Your task to perform on an android device: Open the Play Movies app and select the watchlist tab. Image 0: 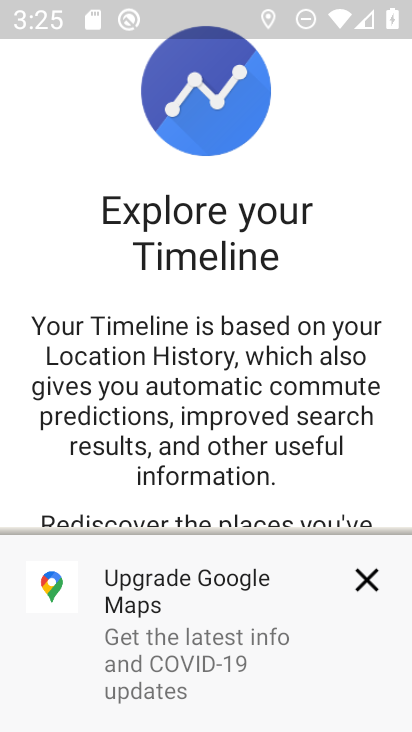
Step 0: press home button
Your task to perform on an android device: Open the Play Movies app and select the watchlist tab. Image 1: 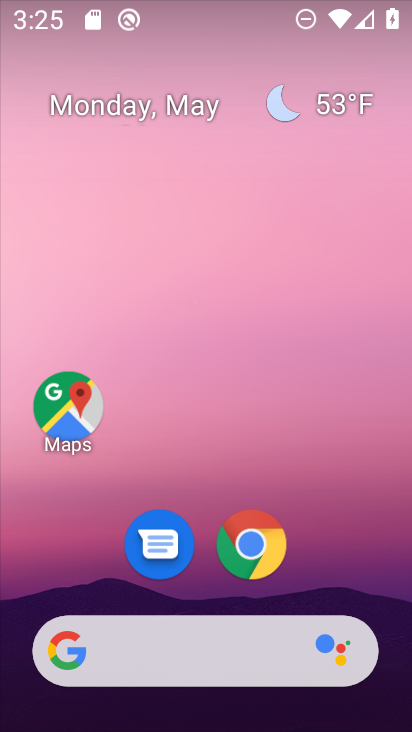
Step 1: drag from (123, 725) to (161, 0)
Your task to perform on an android device: Open the Play Movies app and select the watchlist tab. Image 2: 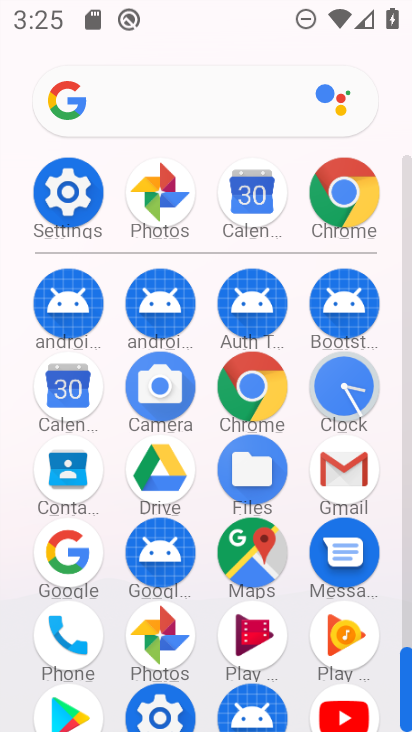
Step 2: click (264, 629)
Your task to perform on an android device: Open the Play Movies app and select the watchlist tab. Image 3: 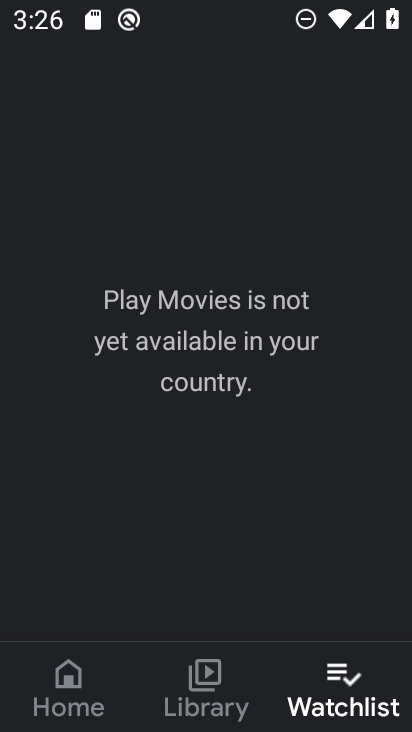
Step 3: task complete